Your task to perform on an android device: add a contact in the contacts app Image 0: 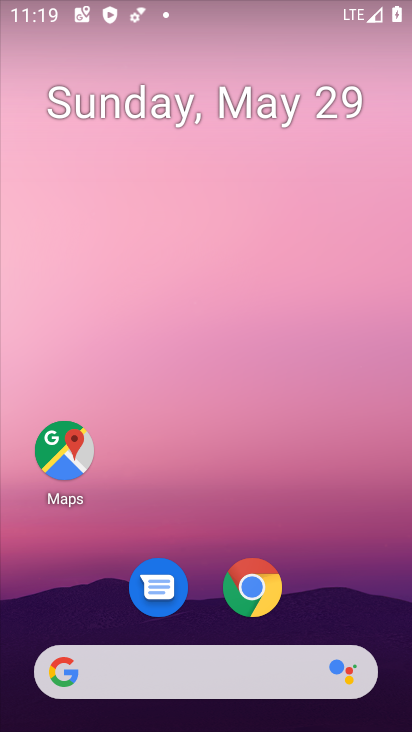
Step 0: drag from (339, 562) to (201, 26)
Your task to perform on an android device: add a contact in the contacts app Image 1: 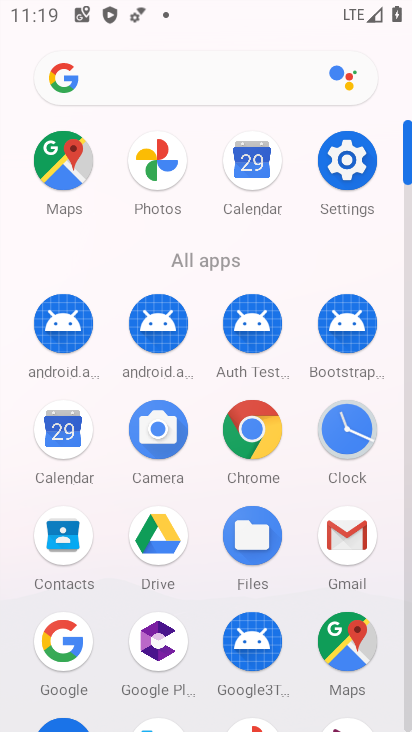
Step 1: click (61, 548)
Your task to perform on an android device: add a contact in the contacts app Image 2: 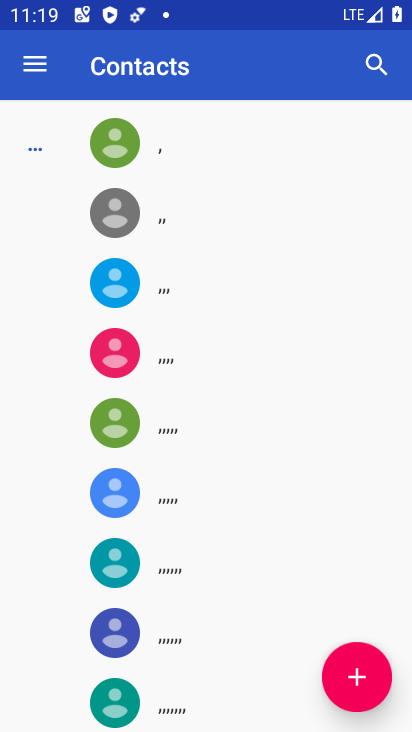
Step 2: click (372, 678)
Your task to perform on an android device: add a contact in the contacts app Image 3: 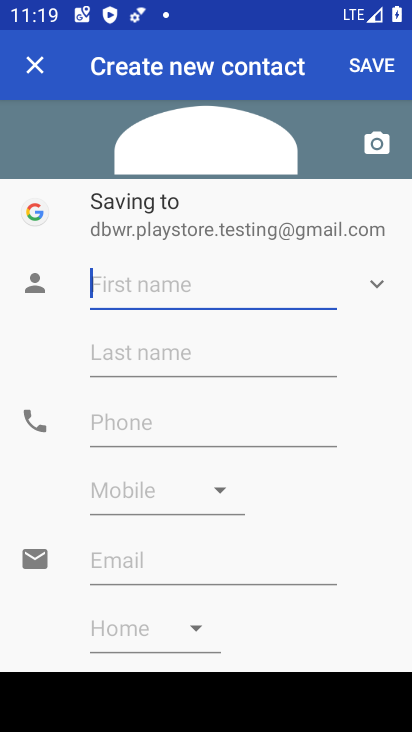
Step 3: type "huliya"
Your task to perform on an android device: add a contact in the contacts app Image 4: 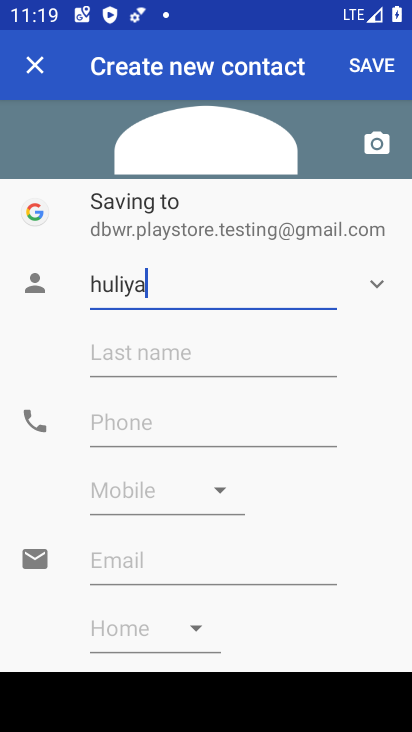
Step 4: click (375, 48)
Your task to perform on an android device: add a contact in the contacts app Image 5: 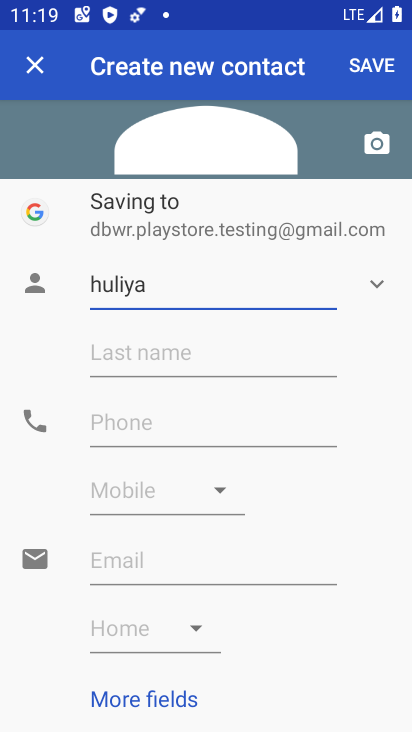
Step 5: click (367, 65)
Your task to perform on an android device: add a contact in the contacts app Image 6: 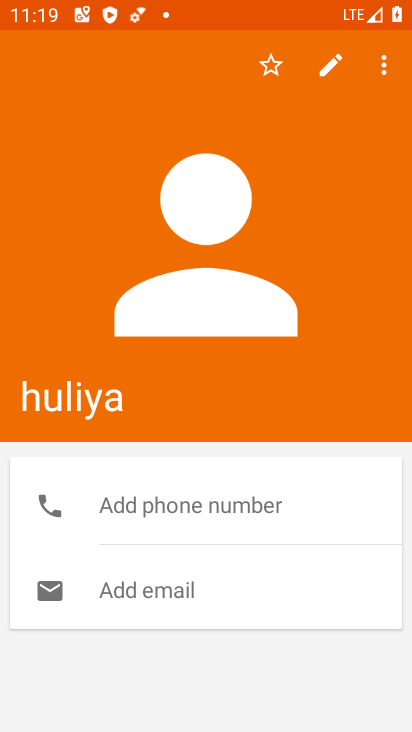
Step 6: task complete